Your task to perform on an android device: open app "ZOOM Cloud Meetings" (install if not already installed) Image 0: 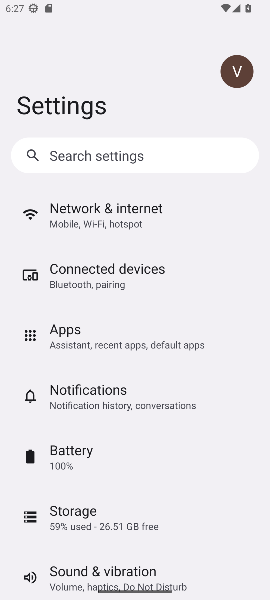
Step 0: task complete